Your task to perform on an android device: all mails in gmail Image 0: 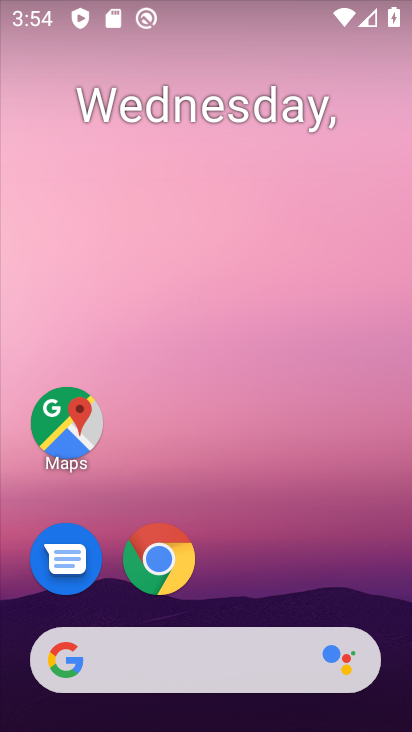
Step 0: drag from (215, 562) to (293, 2)
Your task to perform on an android device: all mails in gmail Image 1: 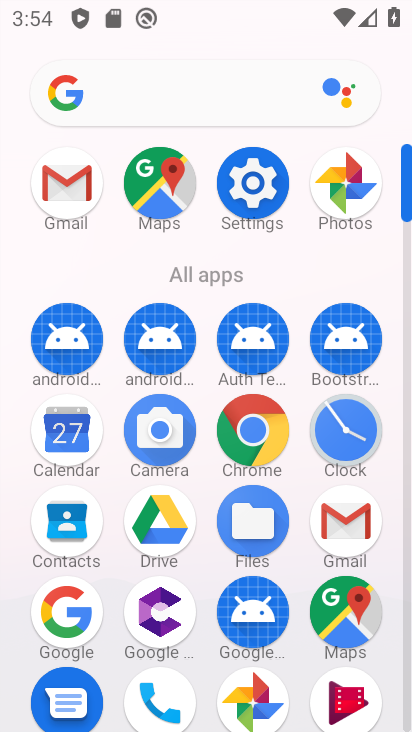
Step 1: click (55, 188)
Your task to perform on an android device: all mails in gmail Image 2: 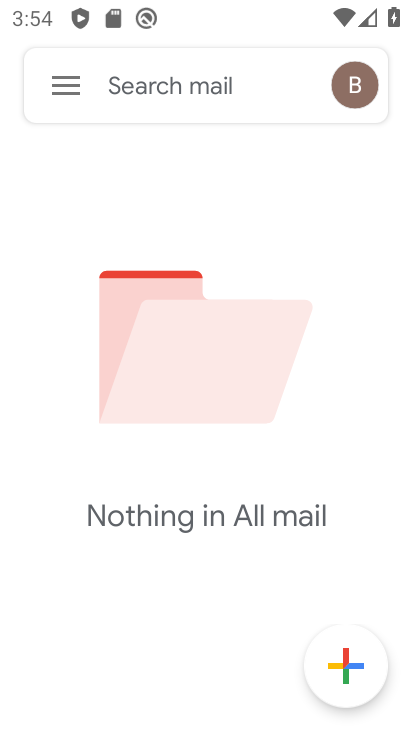
Step 2: task complete